Your task to perform on an android device: Go to wifi settings Image 0: 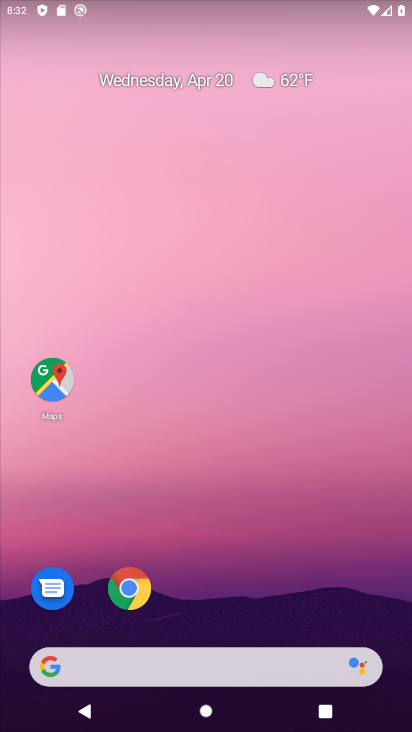
Step 0: drag from (322, 501) to (269, 8)
Your task to perform on an android device: Go to wifi settings Image 1: 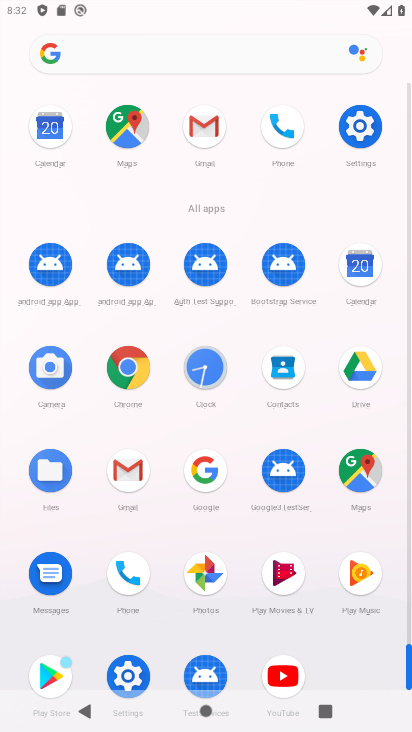
Step 1: drag from (12, 561) to (10, 292)
Your task to perform on an android device: Go to wifi settings Image 2: 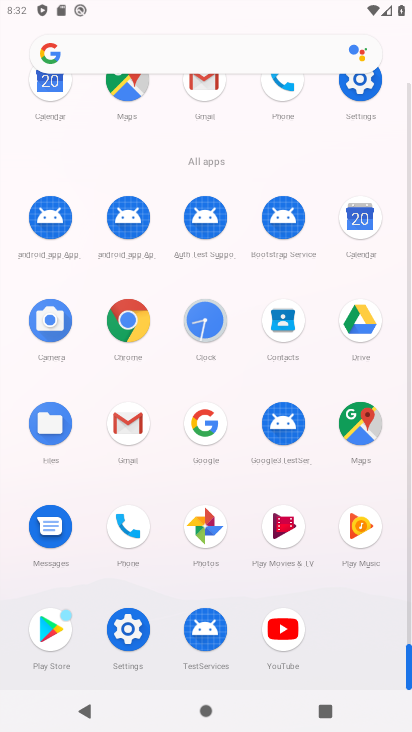
Step 2: click (126, 628)
Your task to perform on an android device: Go to wifi settings Image 3: 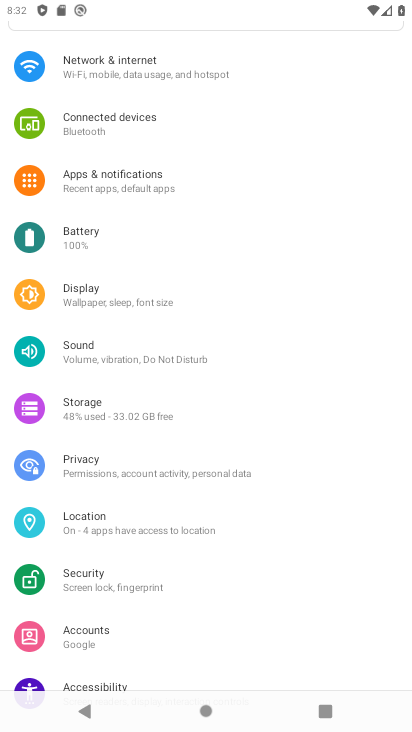
Step 3: drag from (258, 149) to (286, 563)
Your task to perform on an android device: Go to wifi settings Image 4: 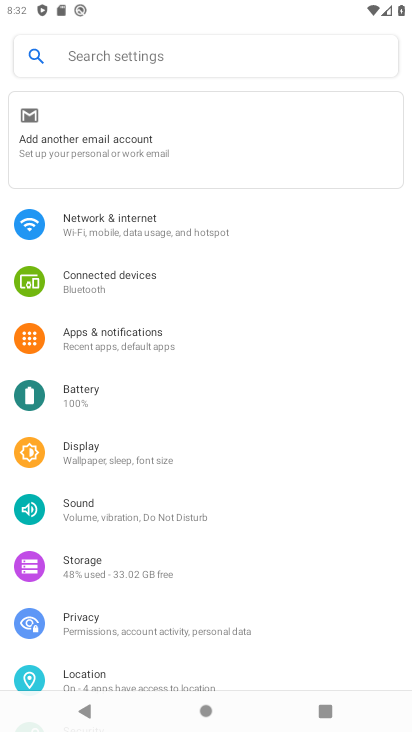
Step 4: drag from (303, 544) to (257, 188)
Your task to perform on an android device: Go to wifi settings Image 5: 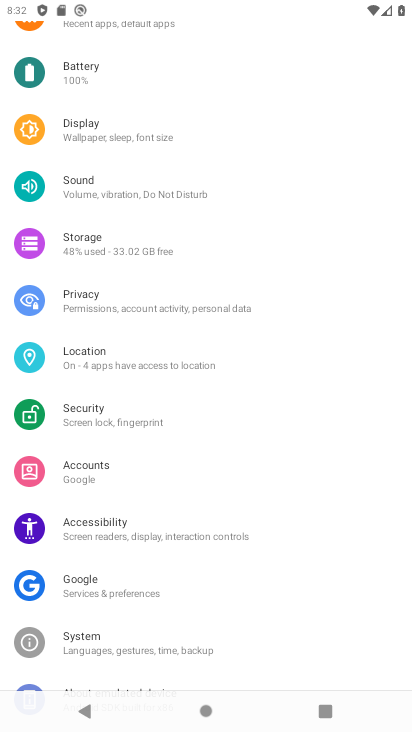
Step 5: drag from (234, 206) to (228, 562)
Your task to perform on an android device: Go to wifi settings Image 6: 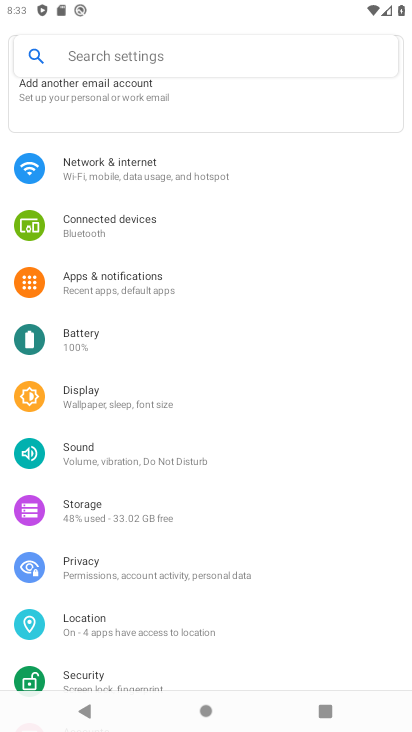
Step 6: click (150, 176)
Your task to perform on an android device: Go to wifi settings Image 7: 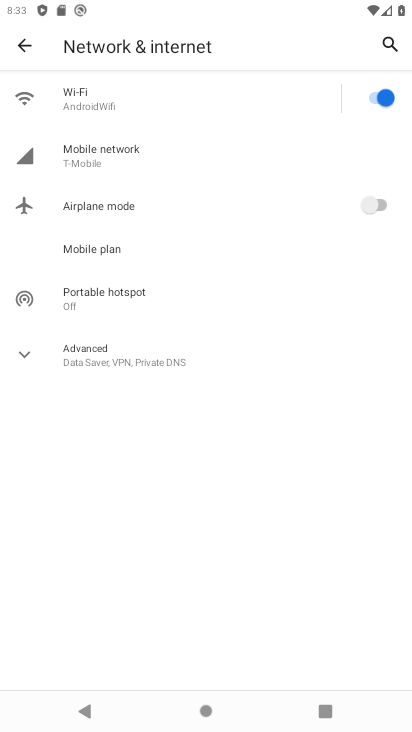
Step 7: click (118, 93)
Your task to perform on an android device: Go to wifi settings Image 8: 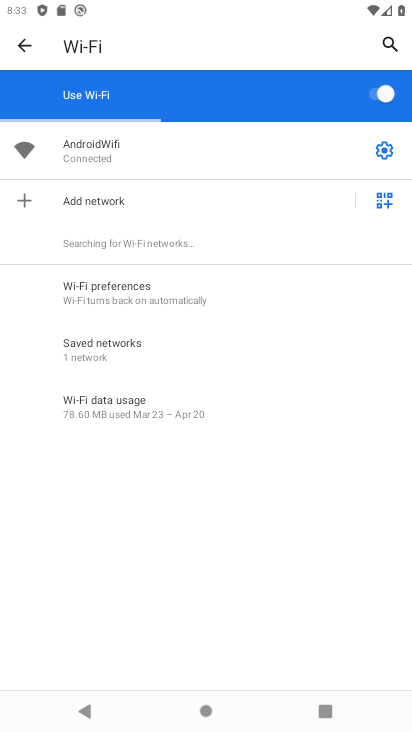
Step 8: task complete